Your task to perform on an android device: Search for seafood restaurants on Google Maps Image 0: 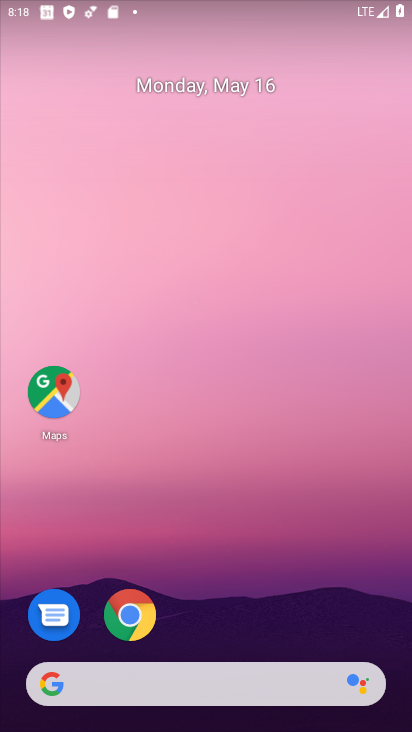
Step 0: drag from (218, 554) to (259, 105)
Your task to perform on an android device: Search for seafood restaurants on Google Maps Image 1: 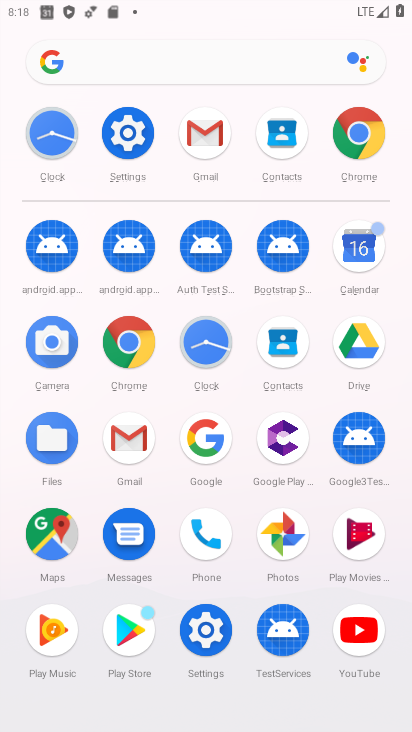
Step 1: click (44, 532)
Your task to perform on an android device: Search for seafood restaurants on Google Maps Image 2: 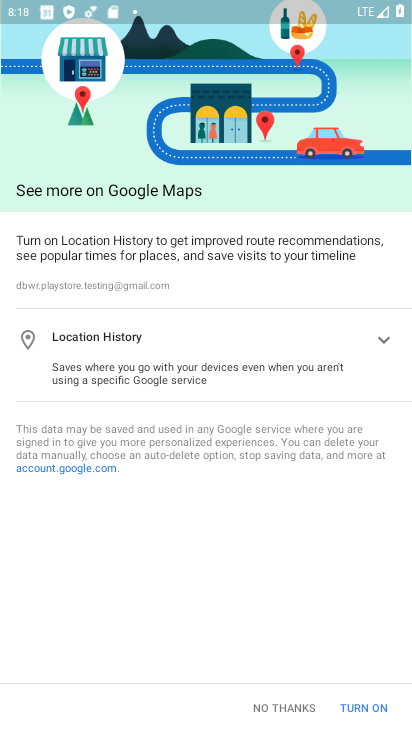
Step 2: click (389, 707)
Your task to perform on an android device: Search for seafood restaurants on Google Maps Image 3: 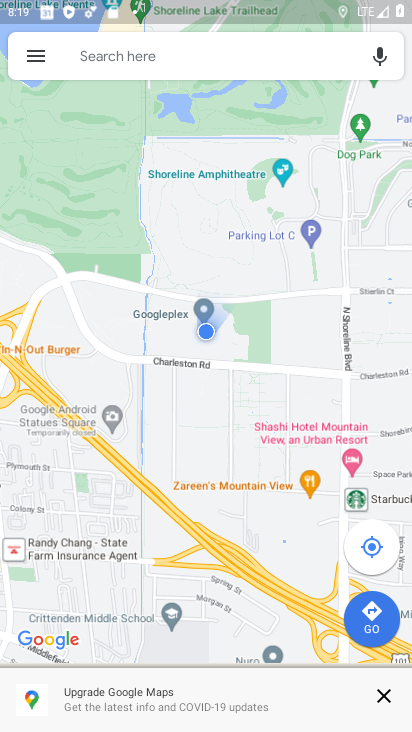
Step 3: click (260, 59)
Your task to perform on an android device: Search for seafood restaurants on Google Maps Image 4: 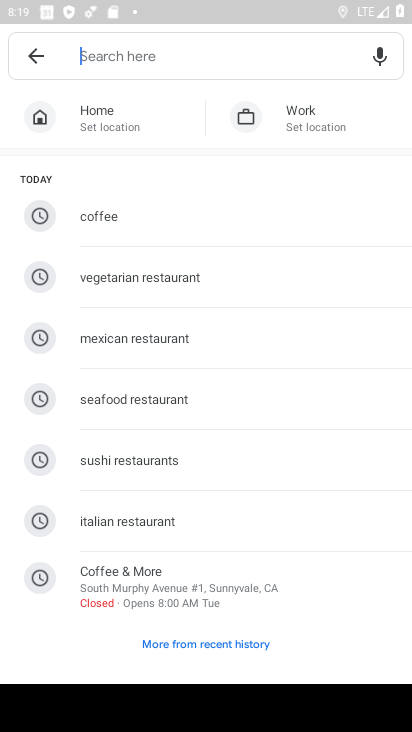
Step 4: click (151, 401)
Your task to perform on an android device: Search for seafood restaurants on Google Maps Image 5: 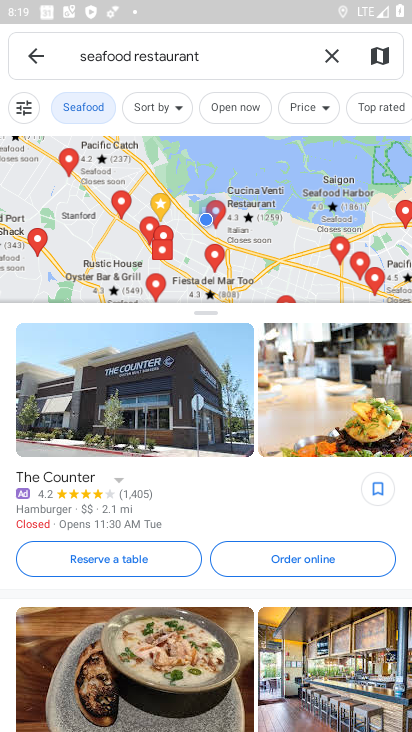
Step 5: task complete